Your task to perform on an android device: set the stopwatch Image 0: 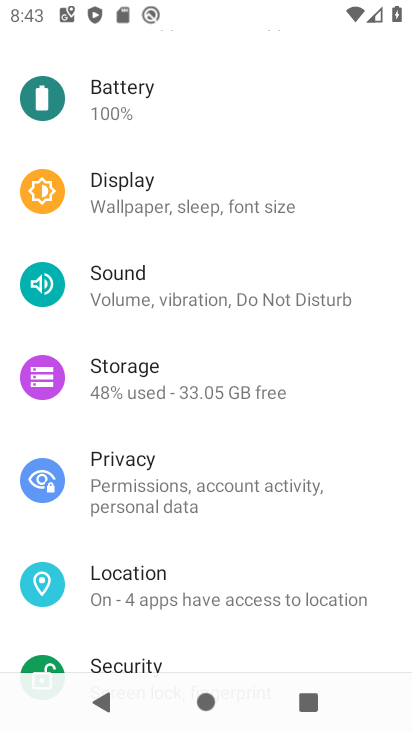
Step 0: press home button
Your task to perform on an android device: set the stopwatch Image 1: 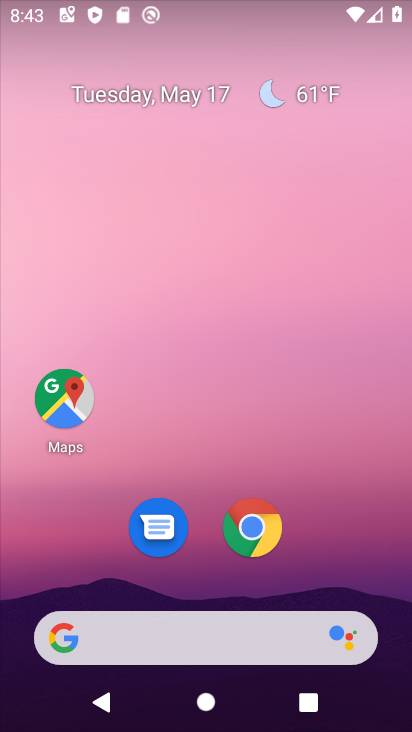
Step 1: drag from (182, 580) to (147, 101)
Your task to perform on an android device: set the stopwatch Image 2: 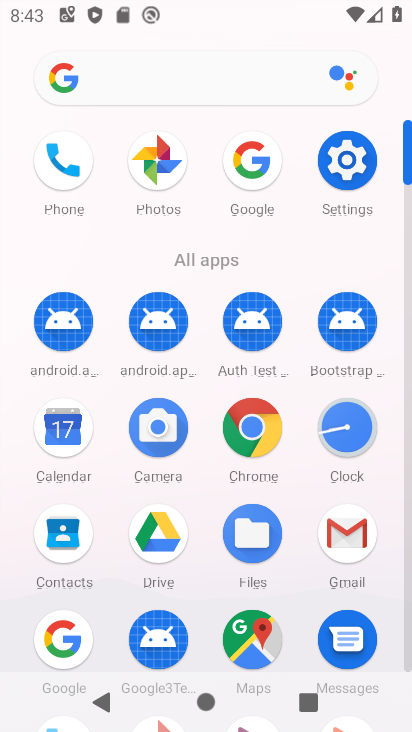
Step 2: click (347, 447)
Your task to perform on an android device: set the stopwatch Image 3: 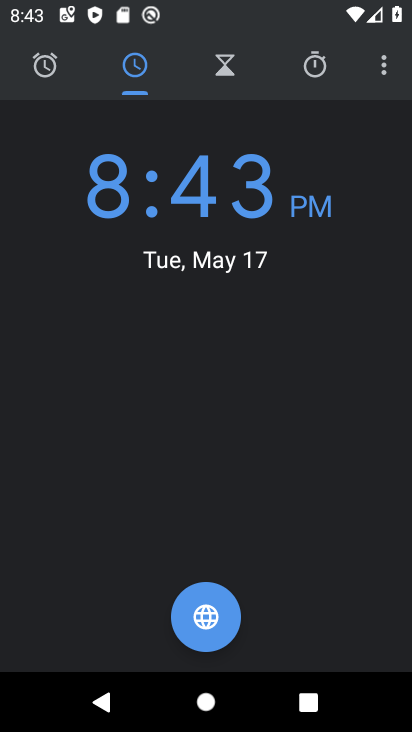
Step 3: click (295, 69)
Your task to perform on an android device: set the stopwatch Image 4: 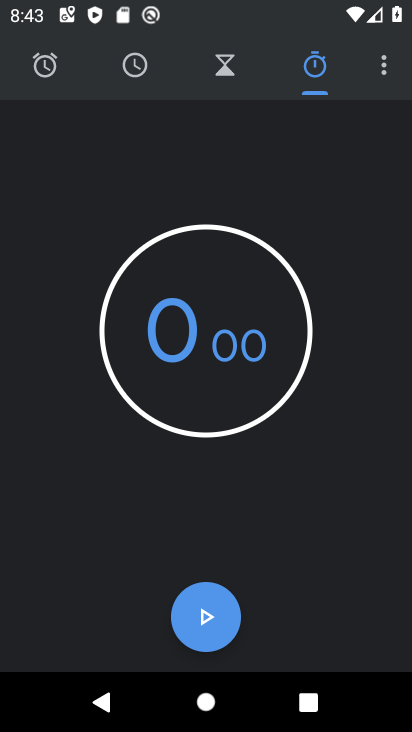
Step 4: click (190, 641)
Your task to perform on an android device: set the stopwatch Image 5: 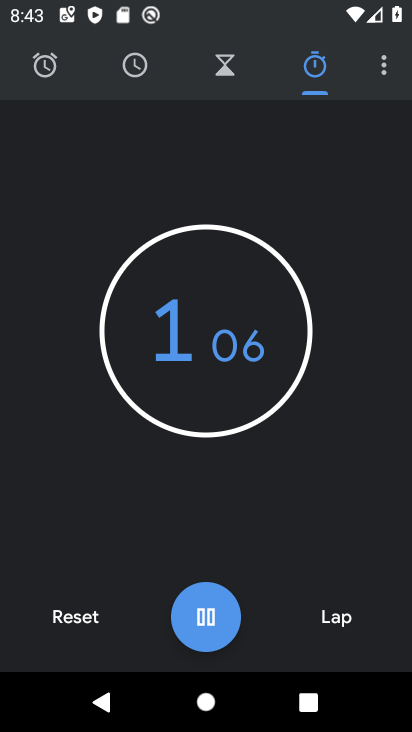
Step 5: click (198, 634)
Your task to perform on an android device: set the stopwatch Image 6: 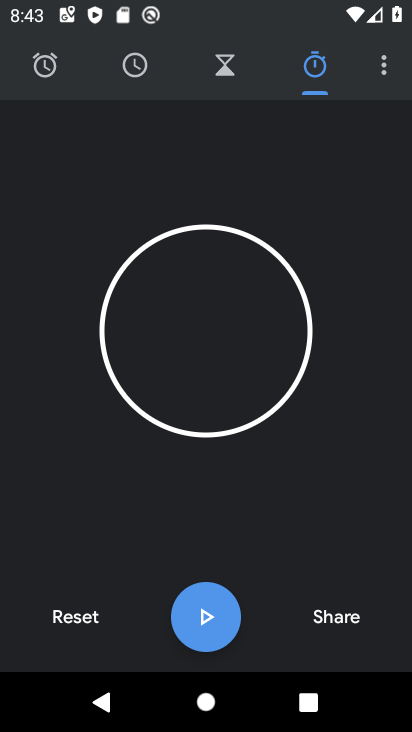
Step 6: task complete